Your task to perform on an android device: open a new tab in the chrome app Image 0: 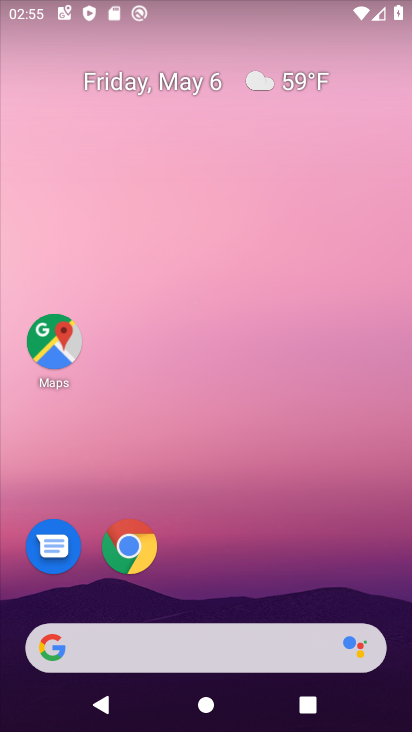
Step 0: click (130, 547)
Your task to perform on an android device: open a new tab in the chrome app Image 1: 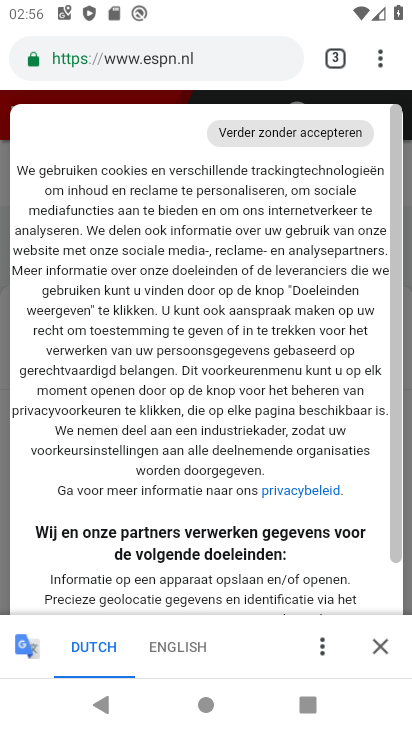
Step 1: click (333, 56)
Your task to perform on an android device: open a new tab in the chrome app Image 2: 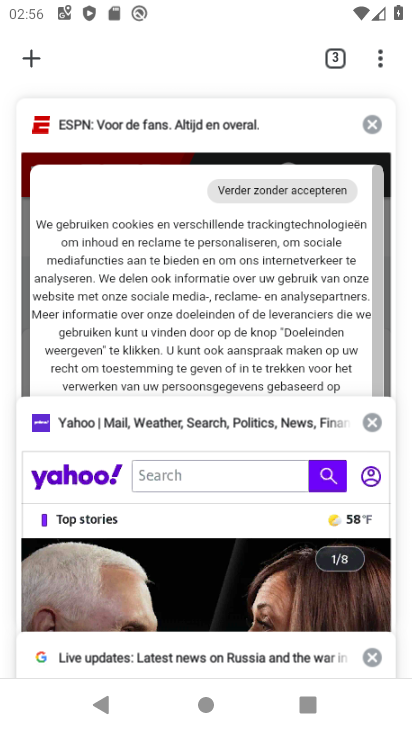
Step 2: click (28, 60)
Your task to perform on an android device: open a new tab in the chrome app Image 3: 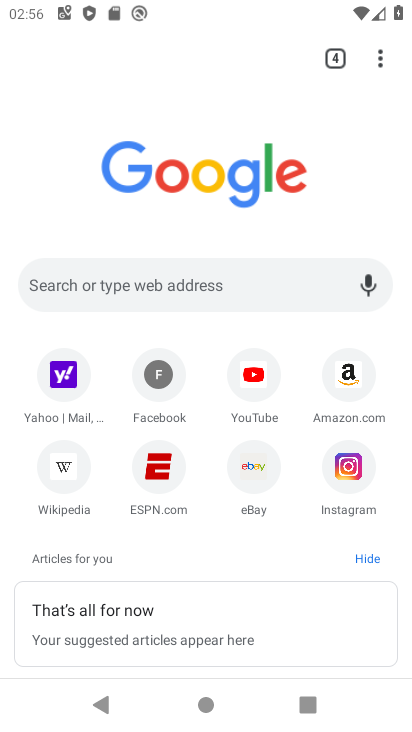
Step 3: task complete